Your task to perform on an android device: Go to network settings Image 0: 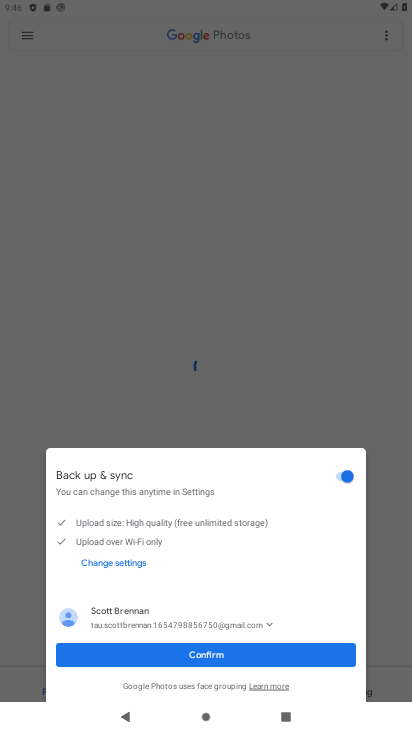
Step 0: press home button
Your task to perform on an android device: Go to network settings Image 1: 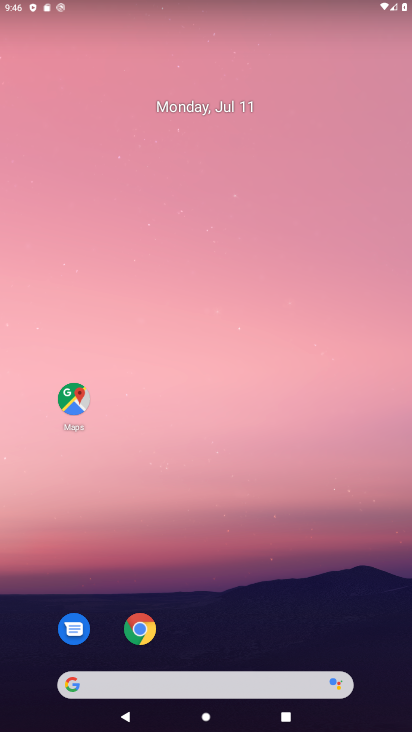
Step 1: drag from (230, 604) to (167, 6)
Your task to perform on an android device: Go to network settings Image 2: 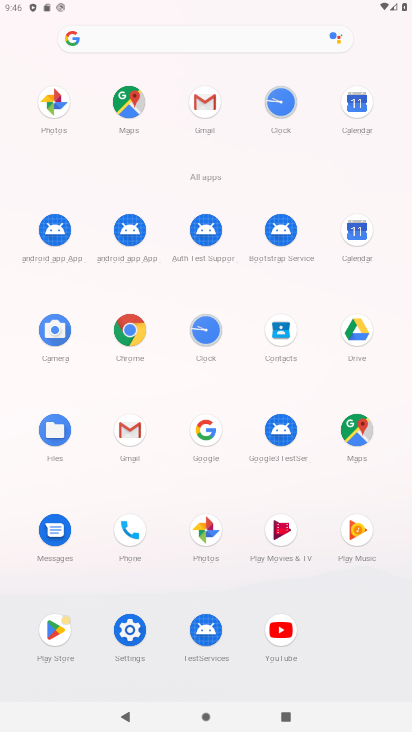
Step 2: click (130, 635)
Your task to perform on an android device: Go to network settings Image 3: 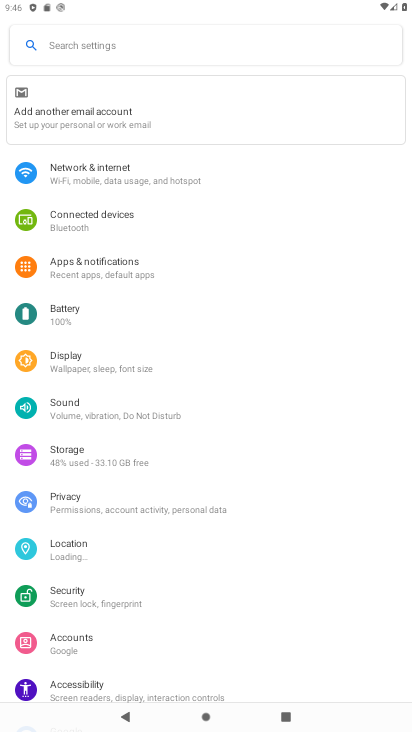
Step 3: click (178, 188)
Your task to perform on an android device: Go to network settings Image 4: 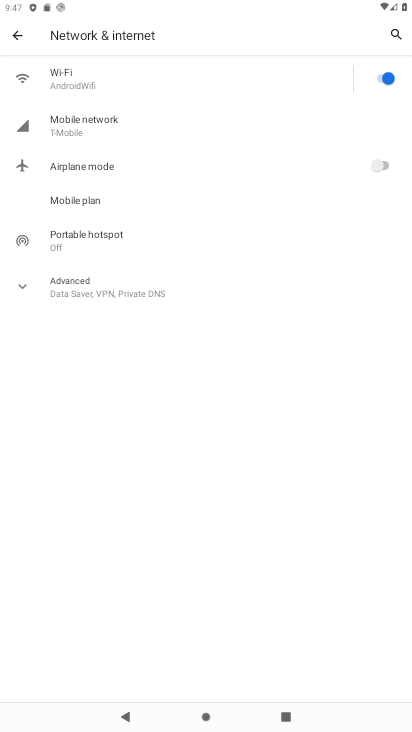
Step 4: task complete